Your task to perform on an android device: Set the phone to "Do not disturb". Image 0: 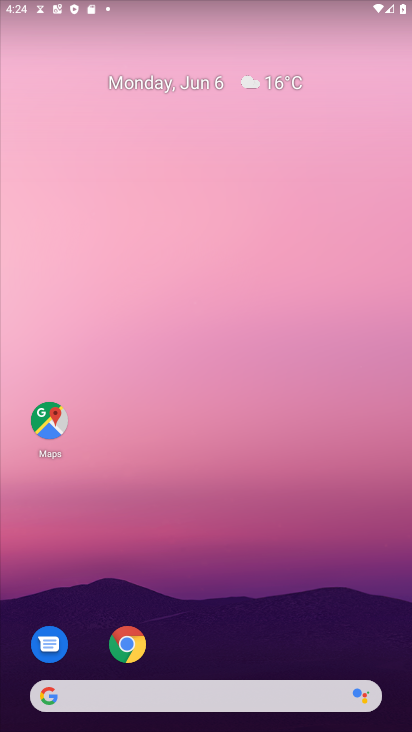
Step 0: drag from (192, 20) to (196, 606)
Your task to perform on an android device: Set the phone to "Do not disturb". Image 1: 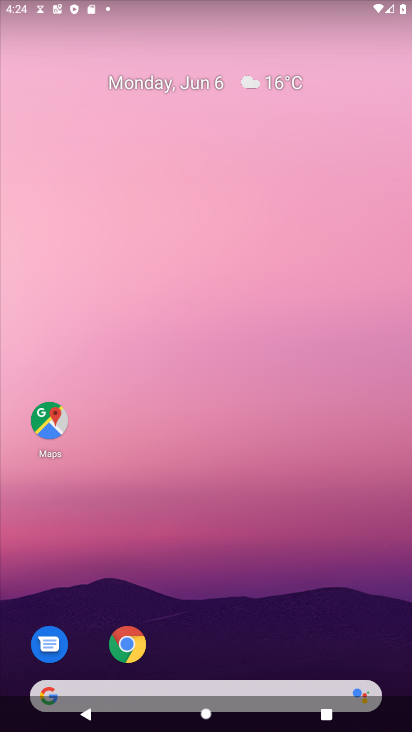
Step 1: drag from (138, 11) to (155, 582)
Your task to perform on an android device: Set the phone to "Do not disturb". Image 2: 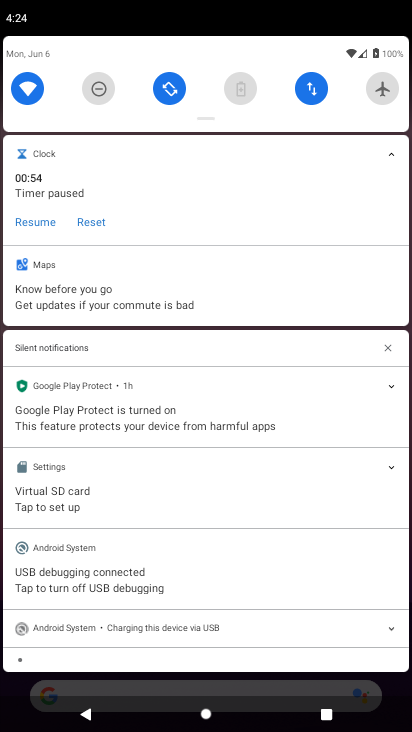
Step 2: drag from (124, 119) to (139, 644)
Your task to perform on an android device: Set the phone to "Do not disturb". Image 3: 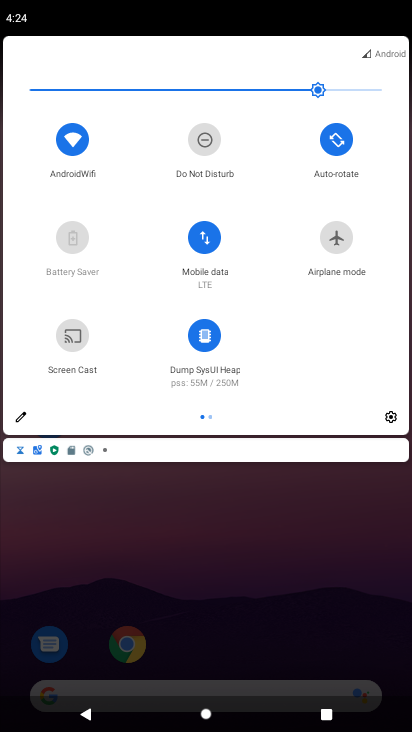
Step 3: click (199, 147)
Your task to perform on an android device: Set the phone to "Do not disturb". Image 4: 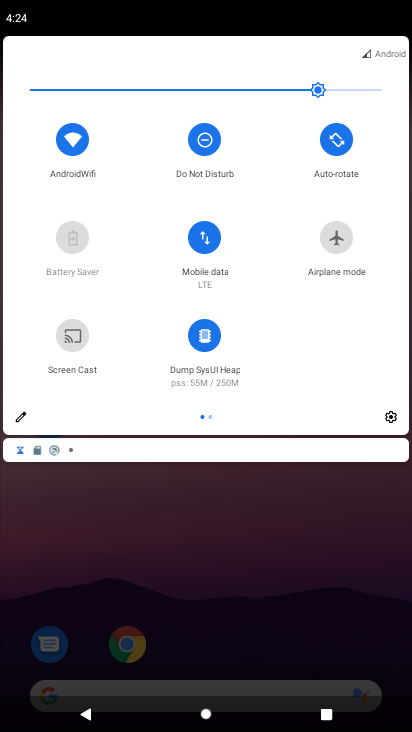
Step 4: task complete